Your task to perform on an android device: Open the stopwatch Image 0: 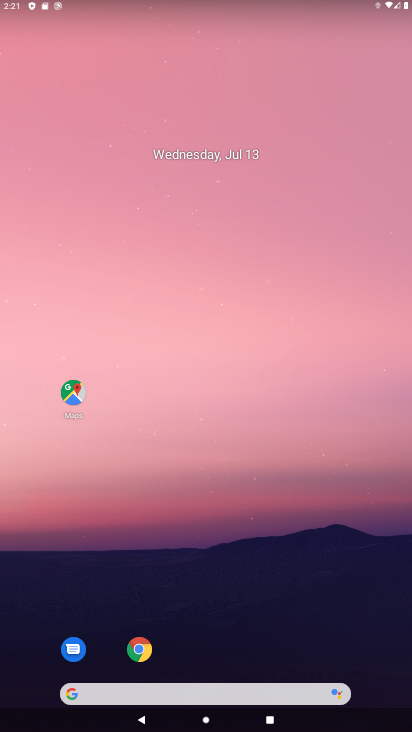
Step 0: drag from (273, 546) to (222, 187)
Your task to perform on an android device: Open the stopwatch Image 1: 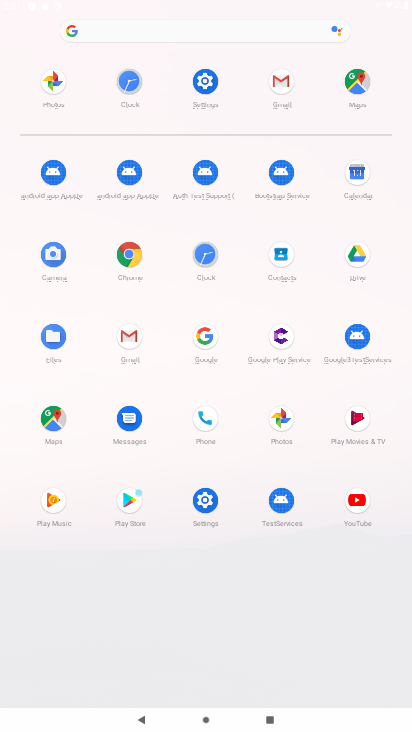
Step 1: click (204, 252)
Your task to perform on an android device: Open the stopwatch Image 2: 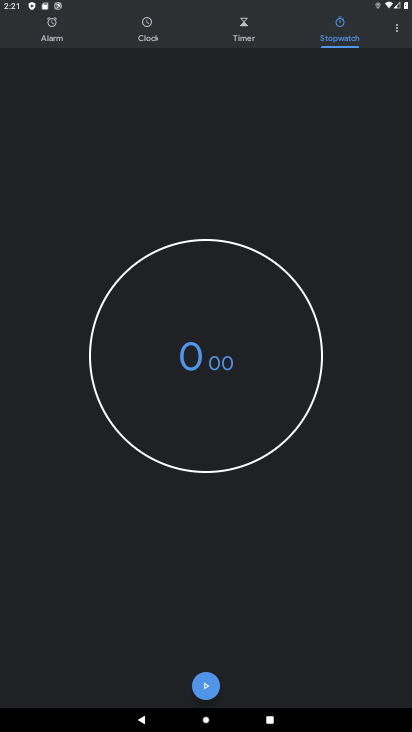
Step 2: task complete